Your task to perform on an android device: uninstall "HBO Max: Stream TV & Movies" Image 0: 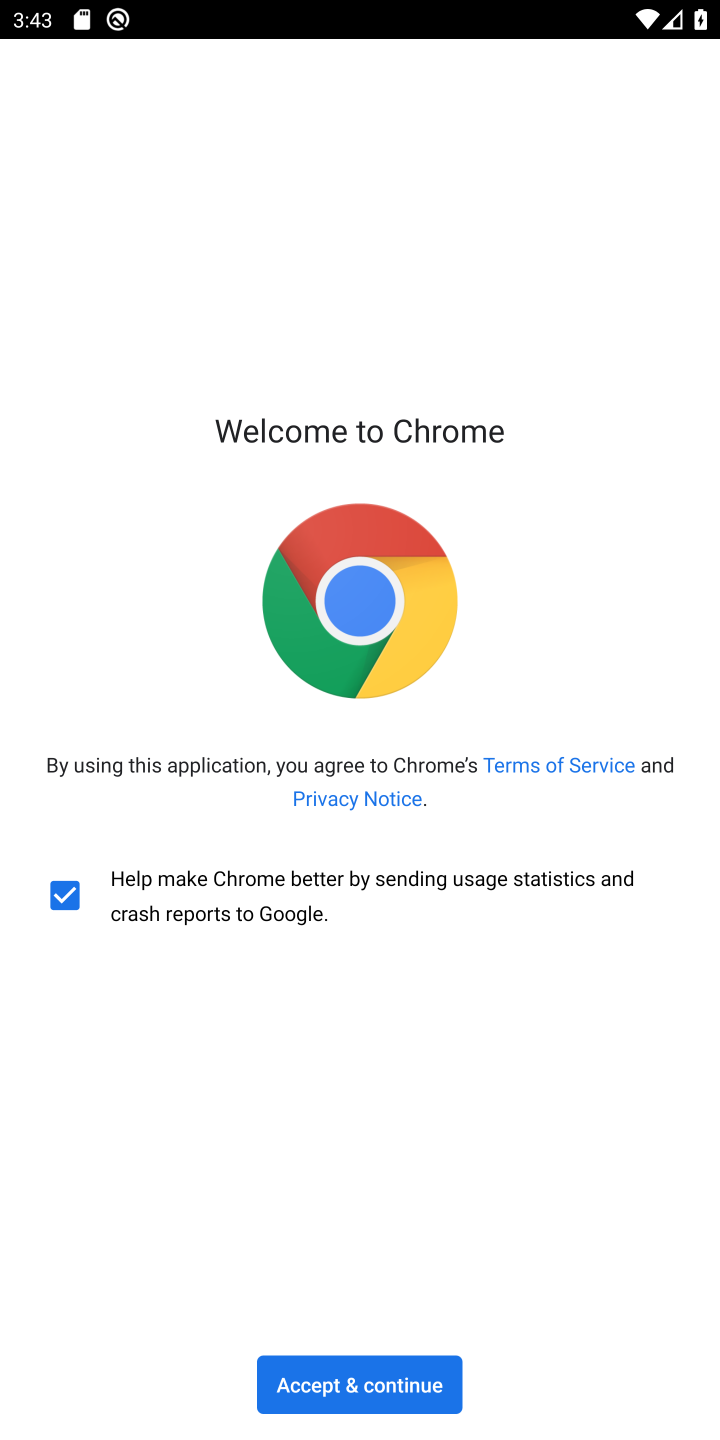
Step 0: press home button
Your task to perform on an android device: uninstall "HBO Max: Stream TV & Movies" Image 1: 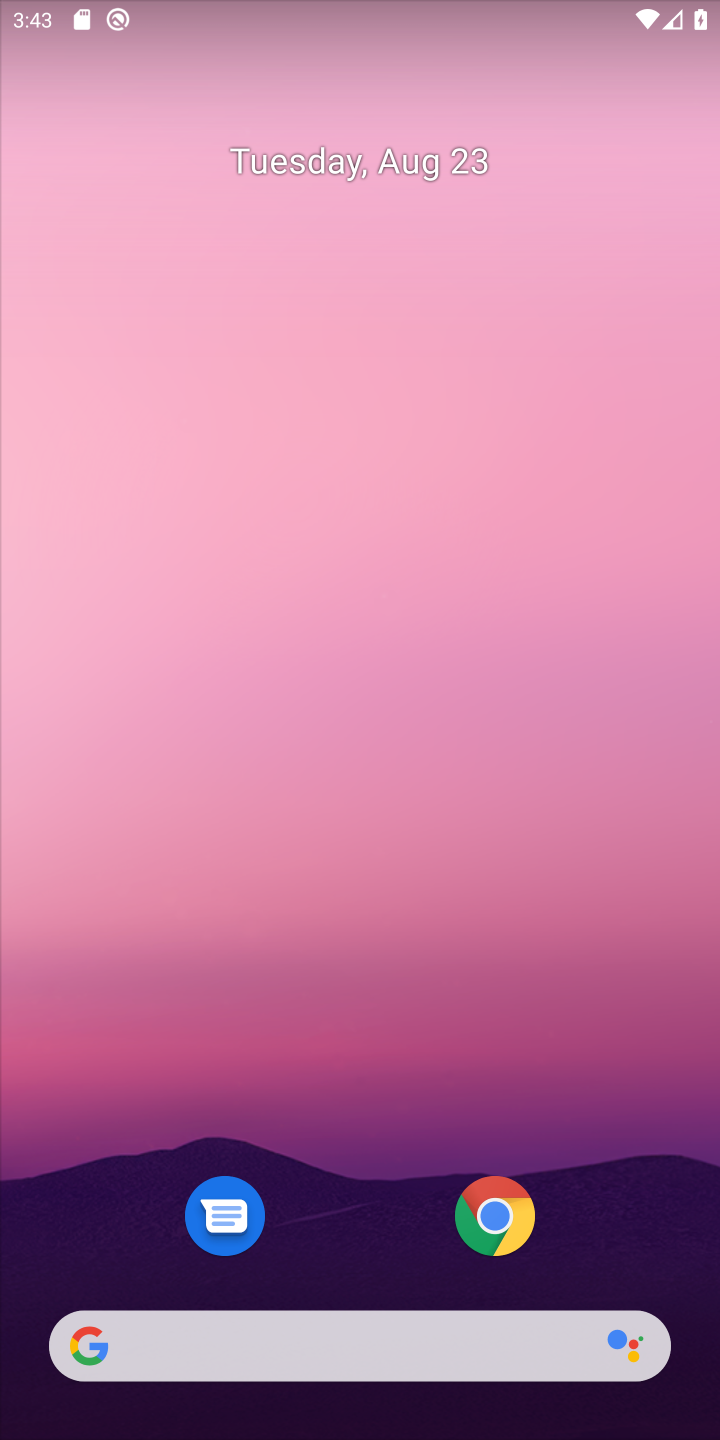
Step 1: drag from (334, 1177) to (355, 56)
Your task to perform on an android device: uninstall "HBO Max: Stream TV & Movies" Image 2: 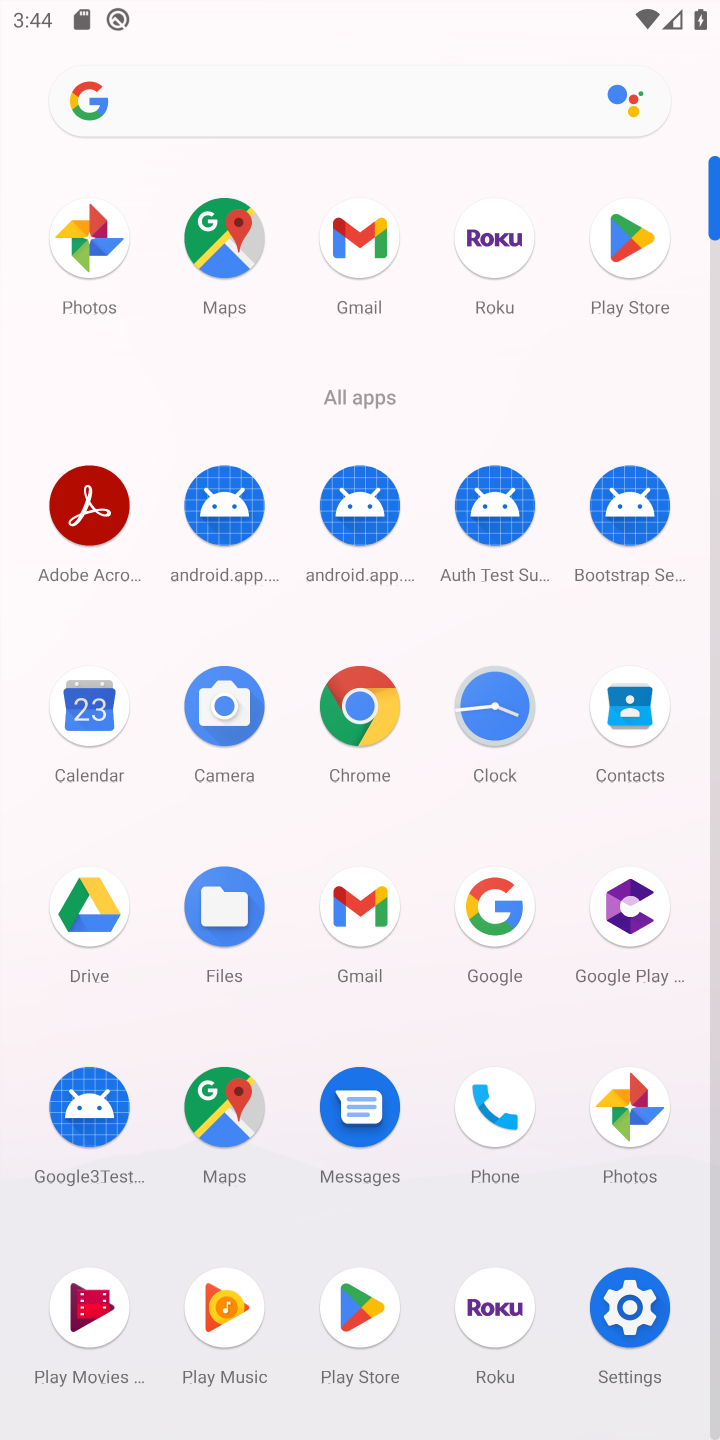
Step 2: click (628, 275)
Your task to perform on an android device: uninstall "HBO Max: Stream TV & Movies" Image 3: 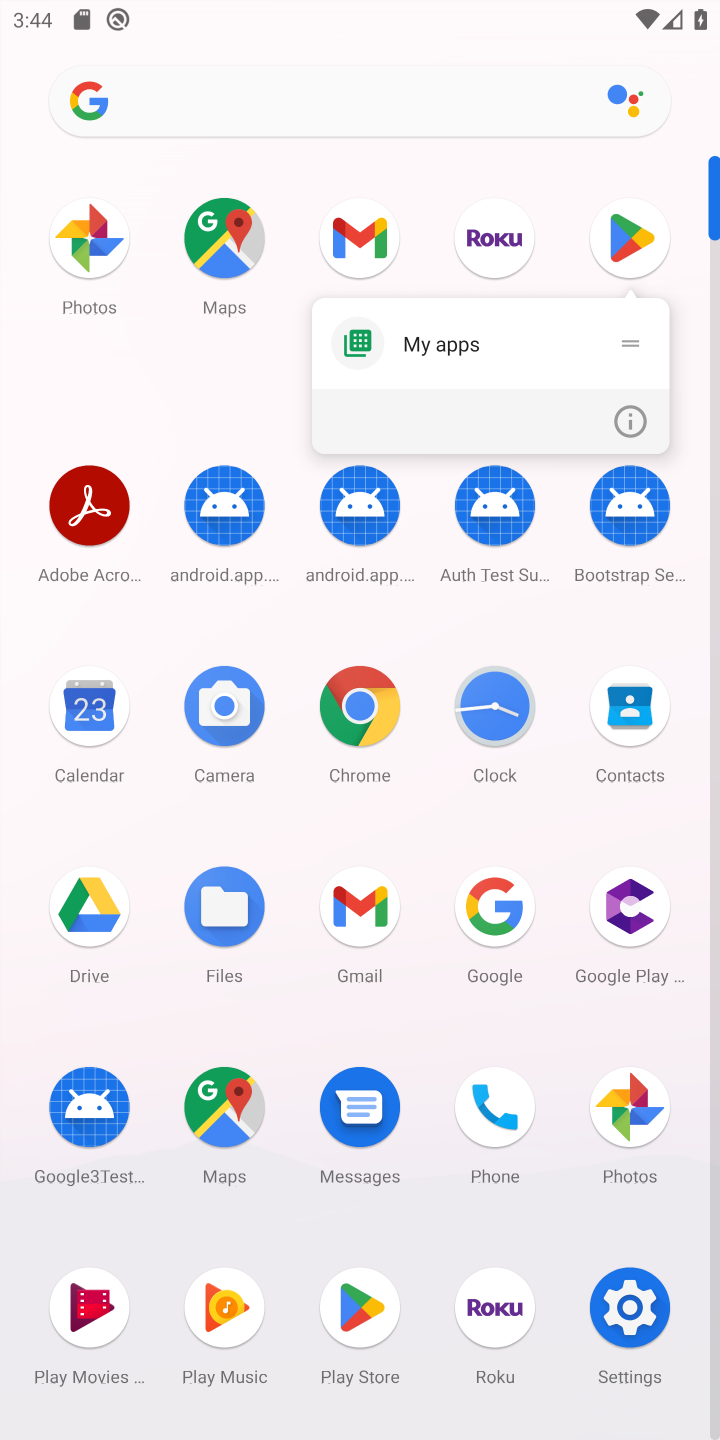
Step 3: click (627, 211)
Your task to perform on an android device: uninstall "HBO Max: Stream TV & Movies" Image 4: 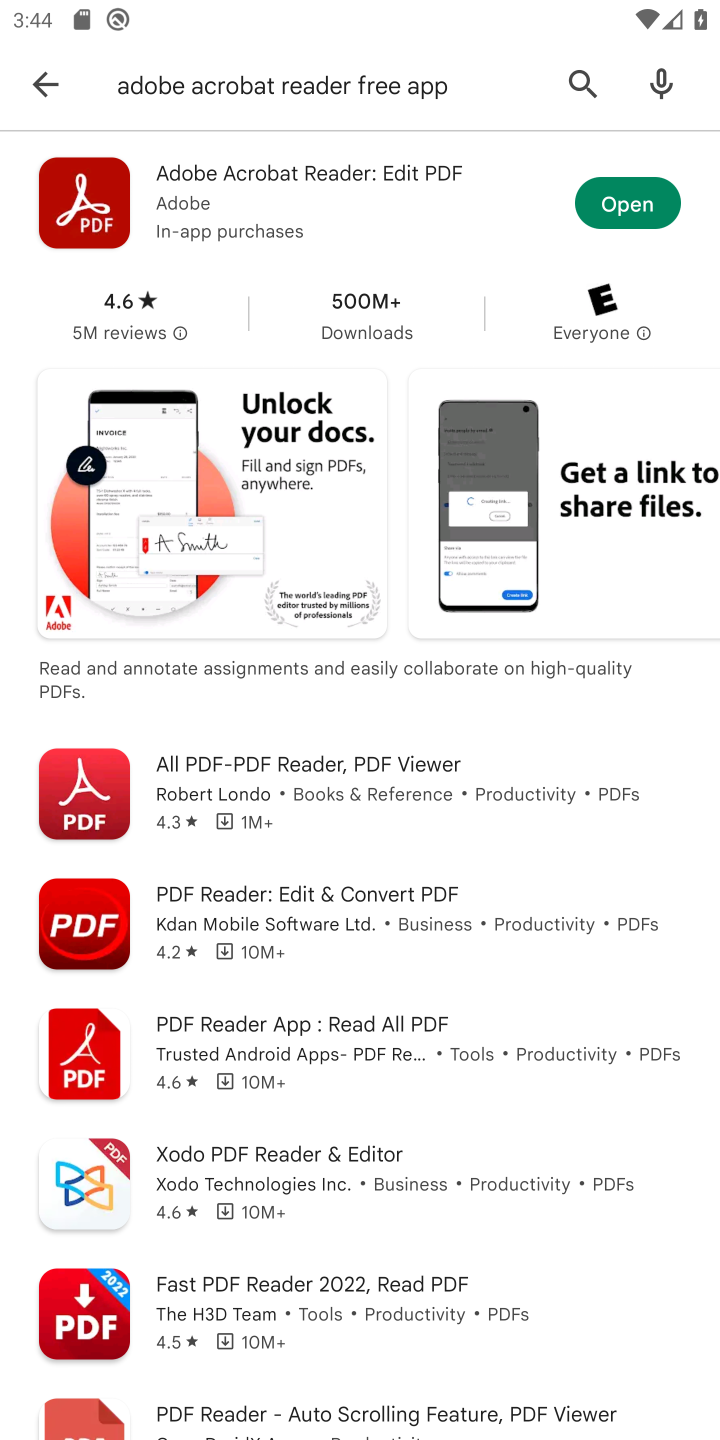
Step 4: click (313, 74)
Your task to perform on an android device: uninstall "HBO Max: Stream TV & Movies" Image 5: 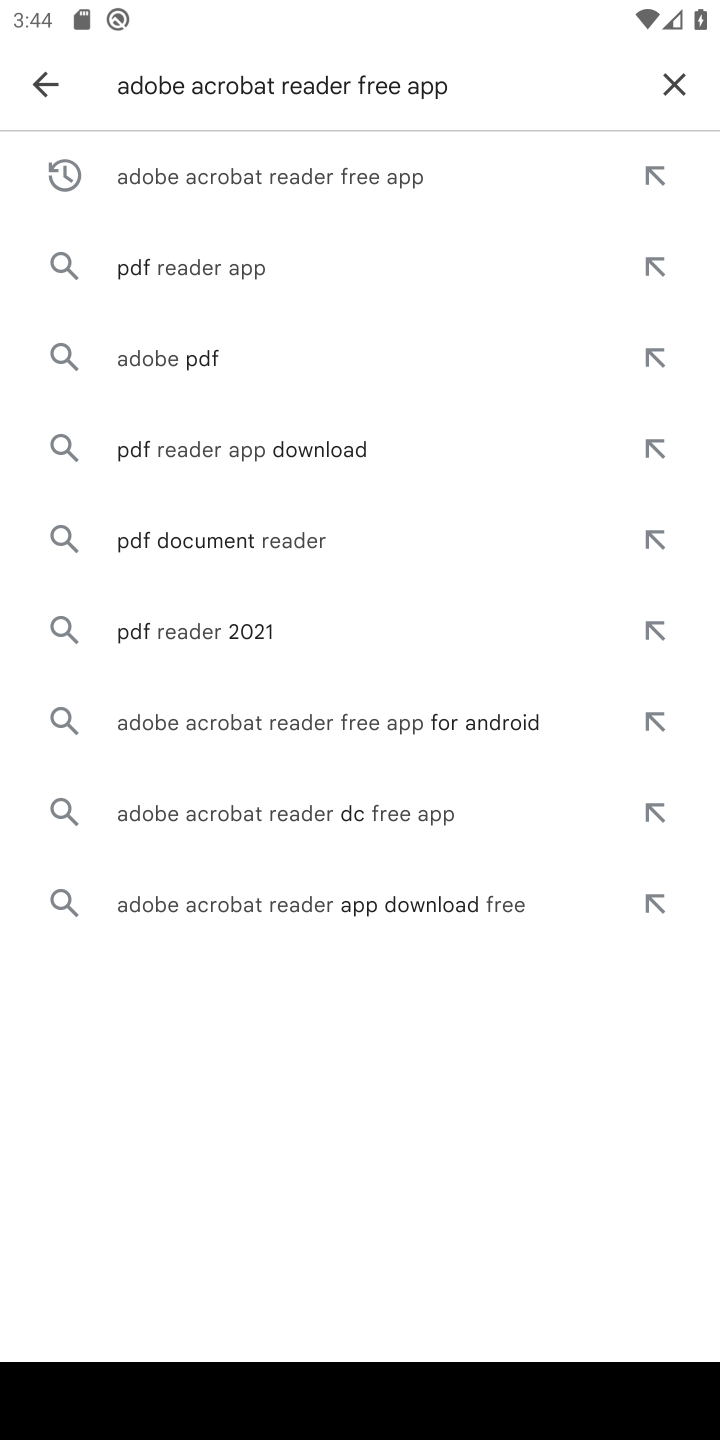
Step 5: click (675, 79)
Your task to perform on an android device: uninstall "HBO Max: Stream TV & Movies" Image 6: 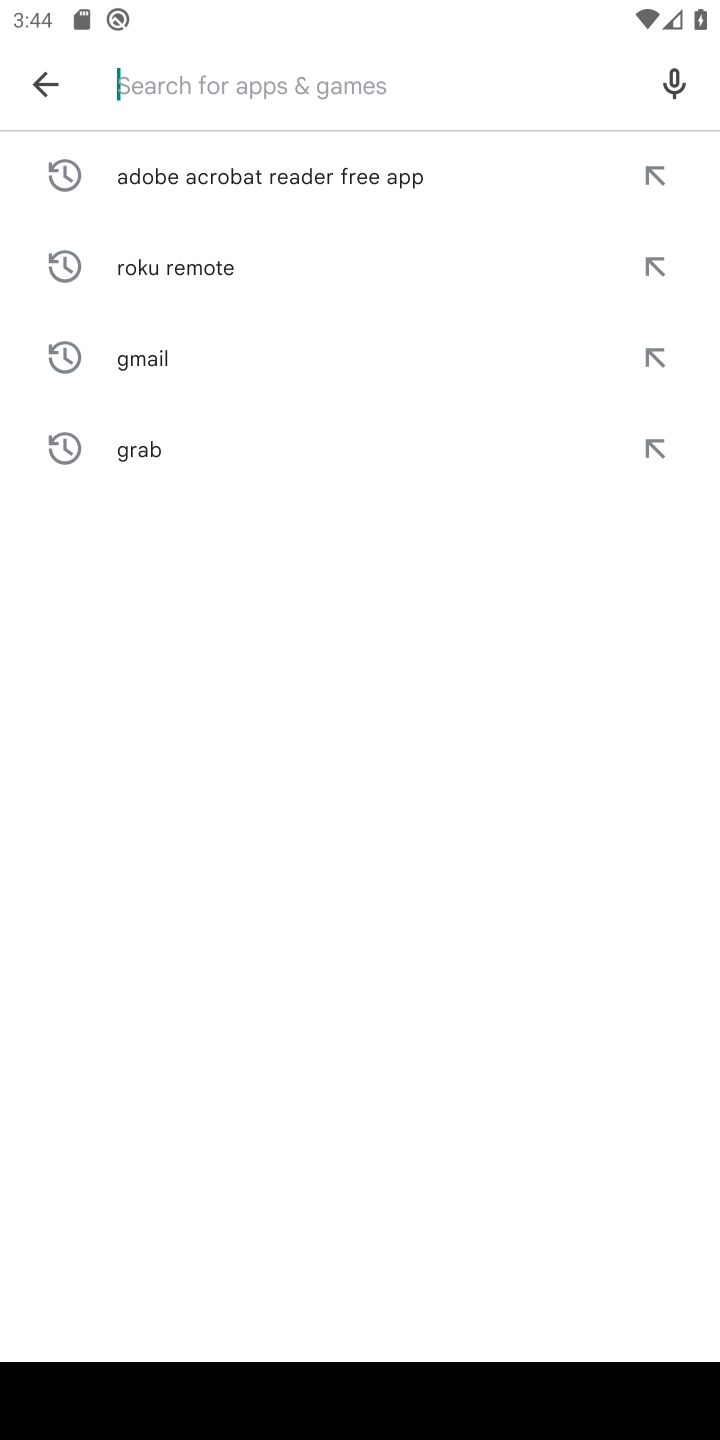
Step 6: type "HBO "
Your task to perform on an android device: uninstall "HBO Max: Stream TV & Movies" Image 7: 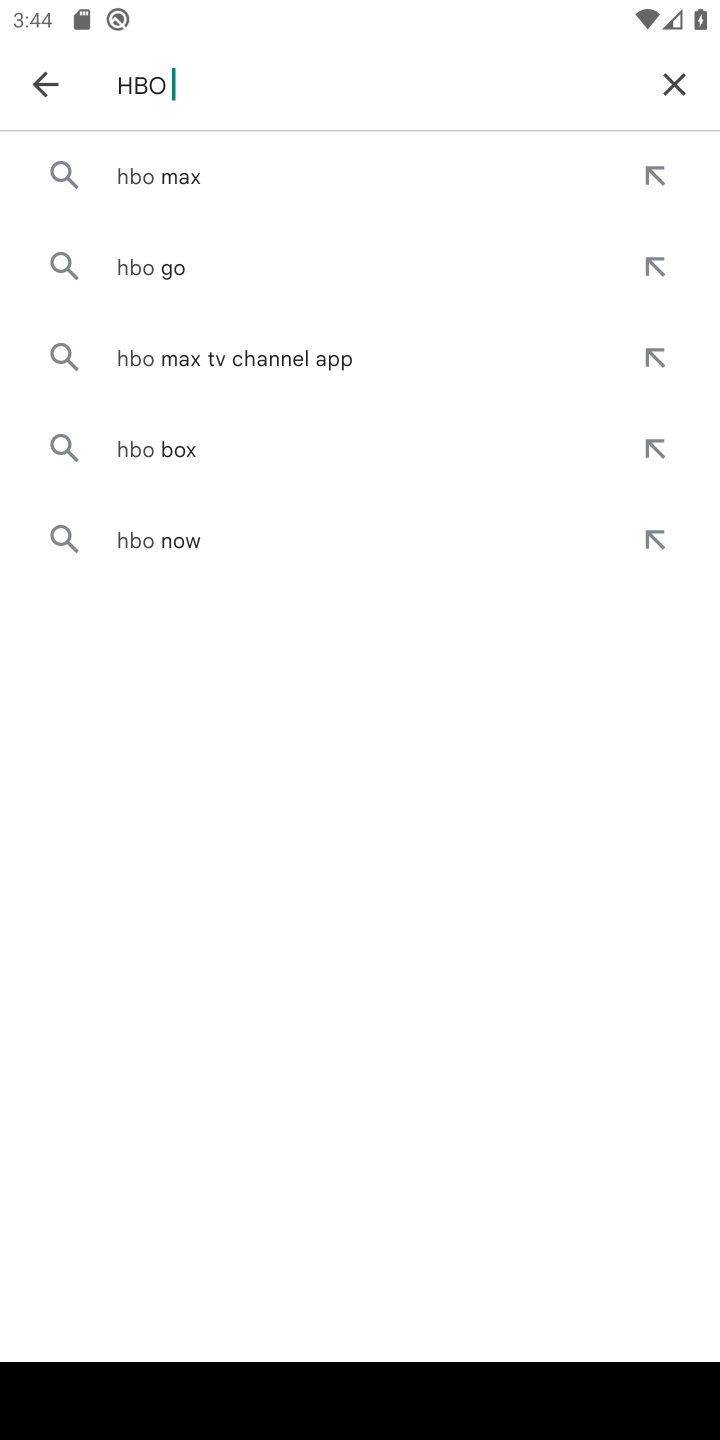
Step 7: click (184, 171)
Your task to perform on an android device: uninstall "HBO Max: Stream TV & Movies" Image 8: 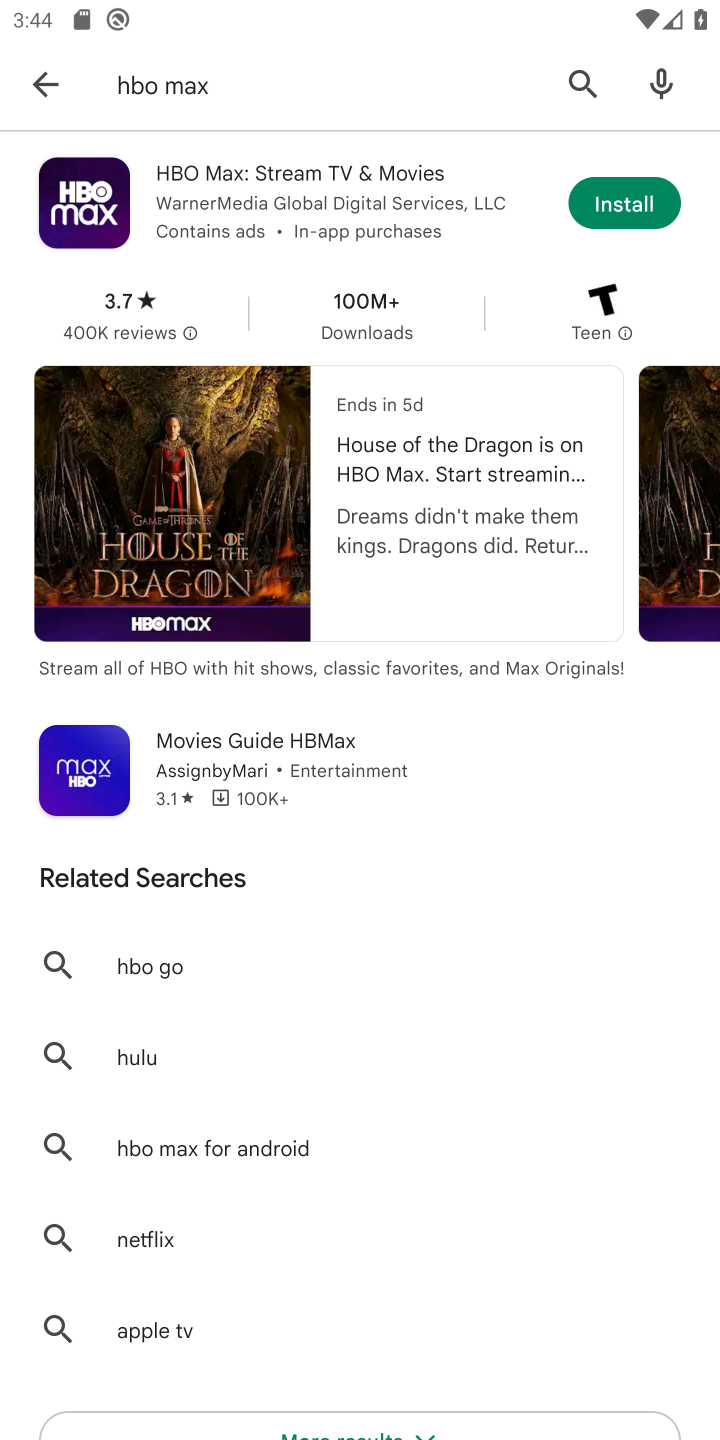
Step 8: task complete